Your task to perform on an android device: turn off javascript in the chrome app Image 0: 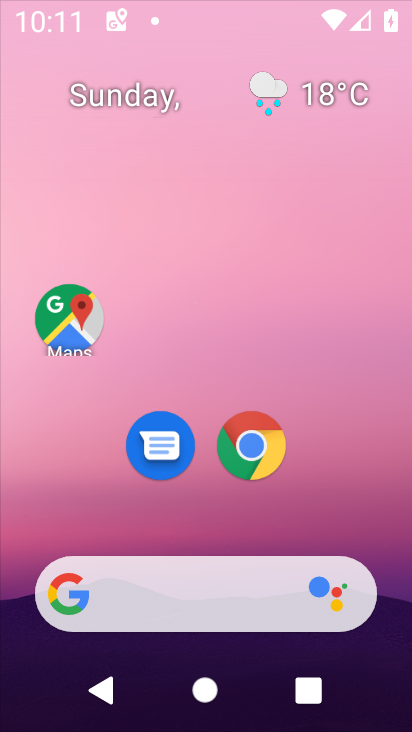
Step 0: press home button
Your task to perform on an android device: turn off javascript in the chrome app Image 1: 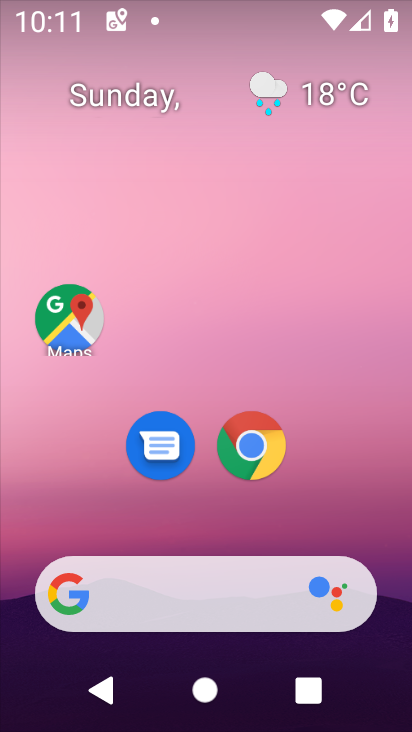
Step 1: click (263, 436)
Your task to perform on an android device: turn off javascript in the chrome app Image 2: 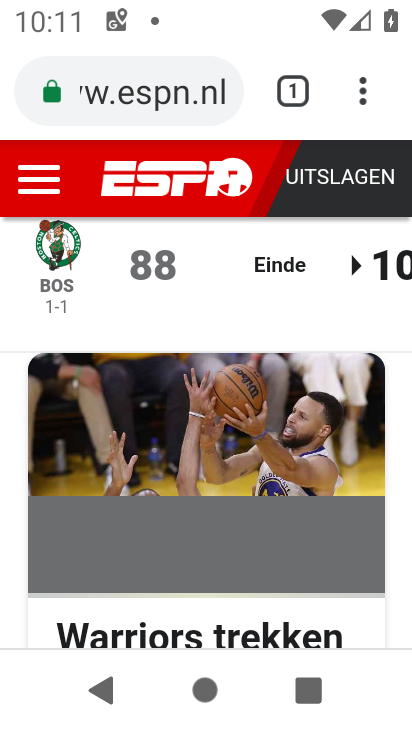
Step 2: click (359, 96)
Your task to perform on an android device: turn off javascript in the chrome app Image 3: 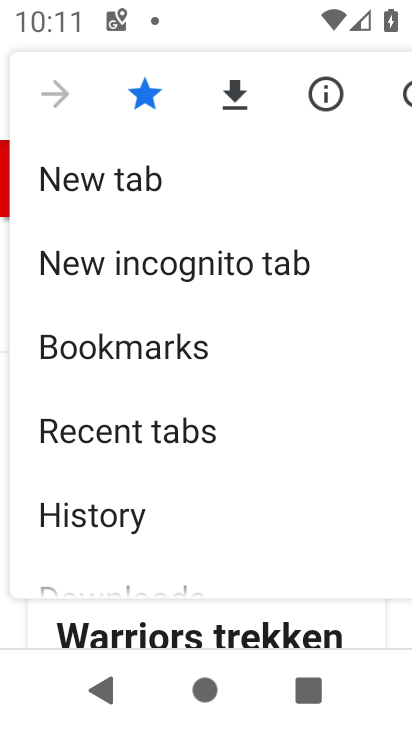
Step 3: drag from (177, 549) to (191, 231)
Your task to perform on an android device: turn off javascript in the chrome app Image 4: 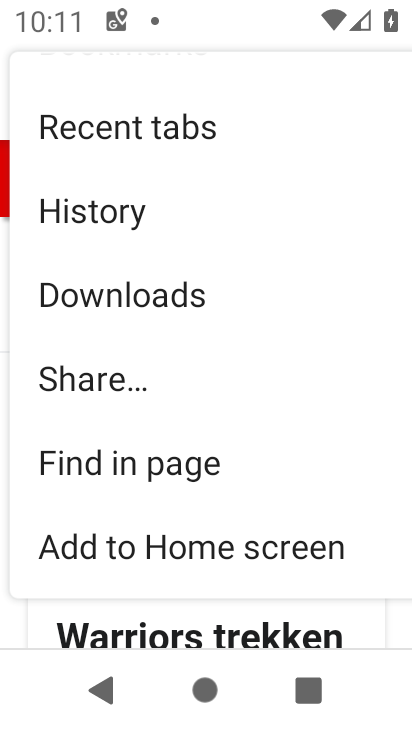
Step 4: drag from (230, 525) to (245, 108)
Your task to perform on an android device: turn off javascript in the chrome app Image 5: 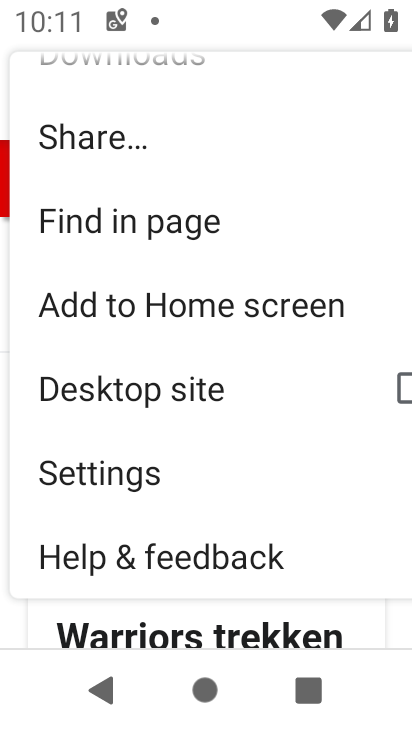
Step 5: click (176, 468)
Your task to perform on an android device: turn off javascript in the chrome app Image 6: 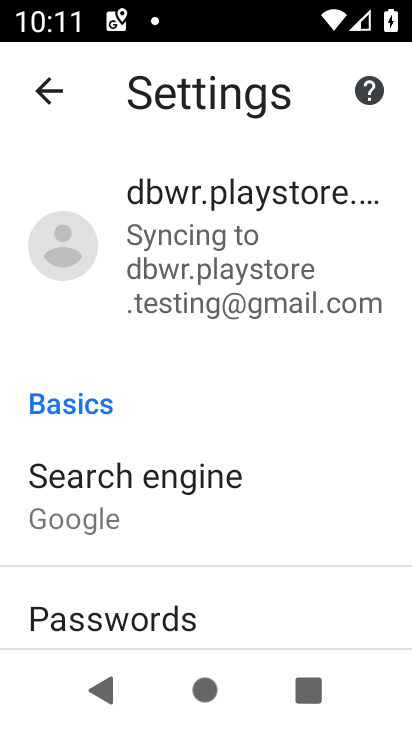
Step 6: drag from (233, 619) to (267, 39)
Your task to perform on an android device: turn off javascript in the chrome app Image 7: 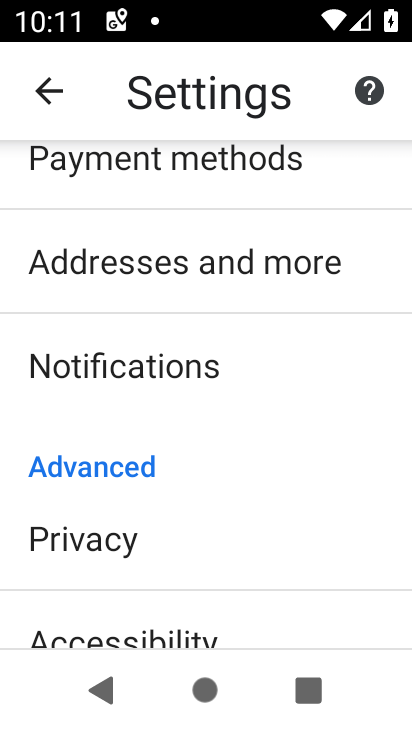
Step 7: drag from (208, 604) to (271, 119)
Your task to perform on an android device: turn off javascript in the chrome app Image 8: 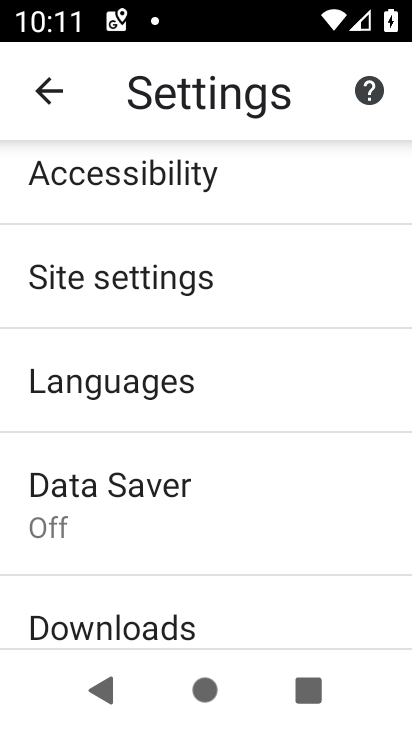
Step 8: click (168, 530)
Your task to perform on an android device: turn off javascript in the chrome app Image 9: 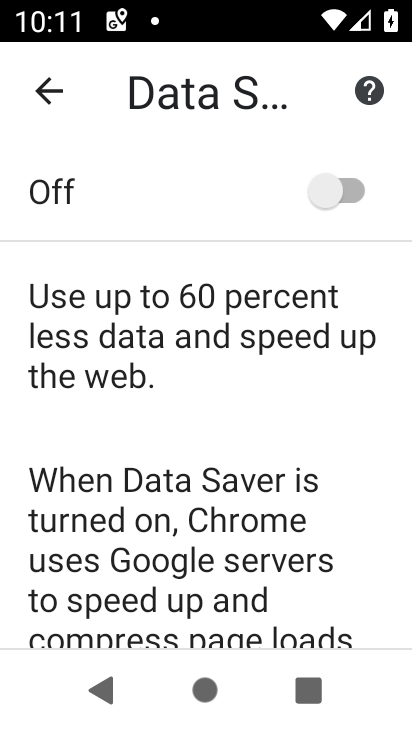
Step 9: task complete